Your task to perform on an android device: toggle pop-ups in chrome Image 0: 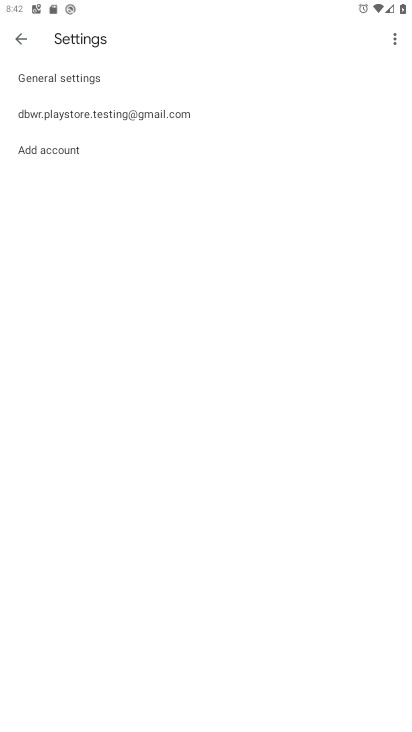
Step 0: press home button
Your task to perform on an android device: toggle pop-ups in chrome Image 1: 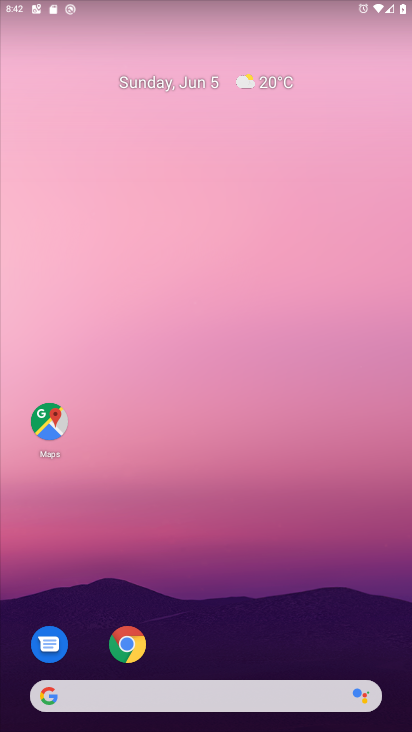
Step 1: drag from (319, 612) to (248, 55)
Your task to perform on an android device: toggle pop-ups in chrome Image 2: 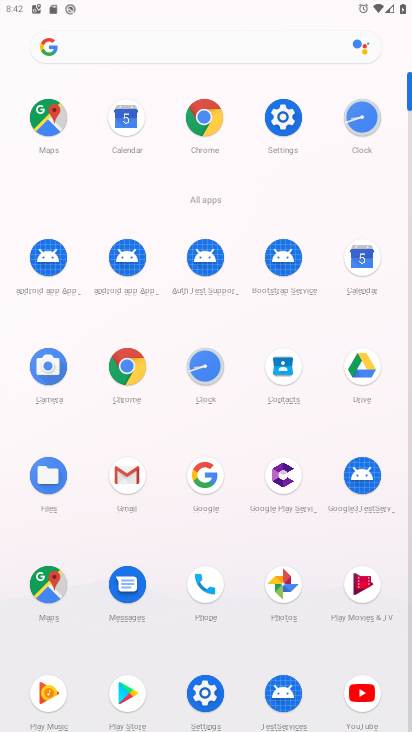
Step 2: click (114, 355)
Your task to perform on an android device: toggle pop-ups in chrome Image 3: 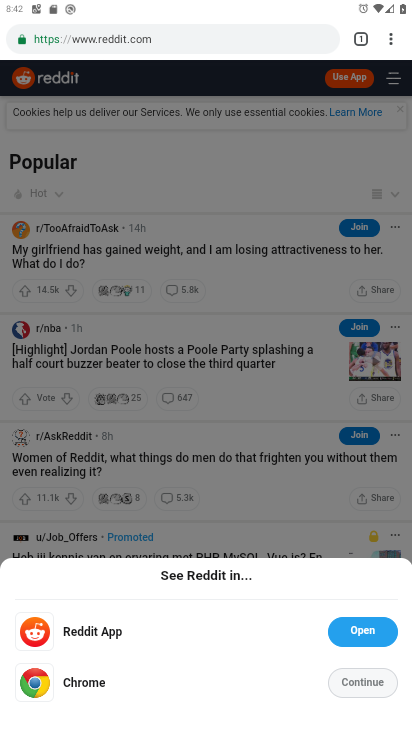
Step 3: click (160, 29)
Your task to perform on an android device: toggle pop-ups in chrome Image 4: 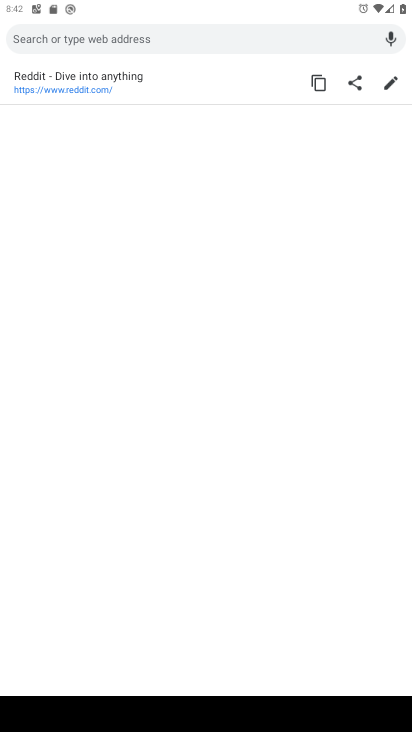
Step 4: press back button
Your task to perform on an android device: toggle pop-ups in chrome Image 5: 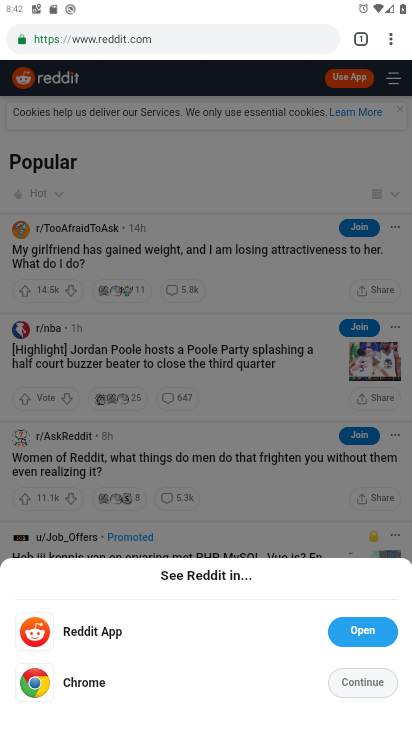
Step 5: drag from (390, 50) to (276, 472)
Your task to perform on an android device: toggle pop-ups in chrome Image 6: 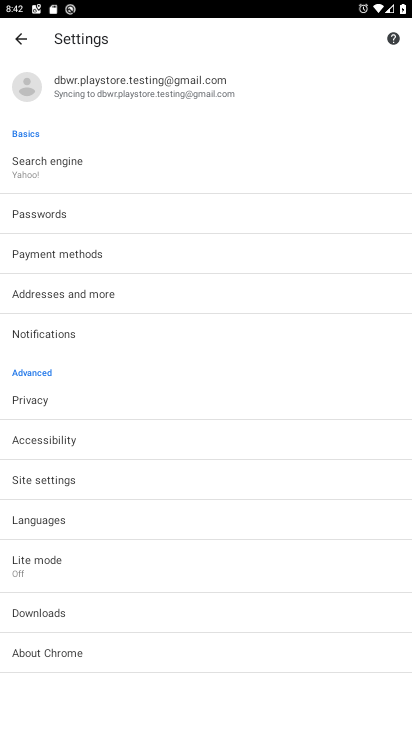
Step 6: click (90, 484)
Your task to perform on an android device: toggle pop-ups in chrome Image 7: 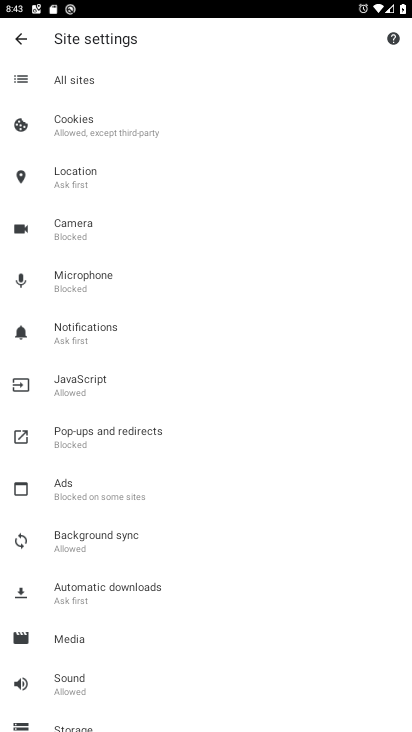
Step 7: click (144, 441)
Your task to perform on an android device: toggle pop-ups in chrome Image 8: 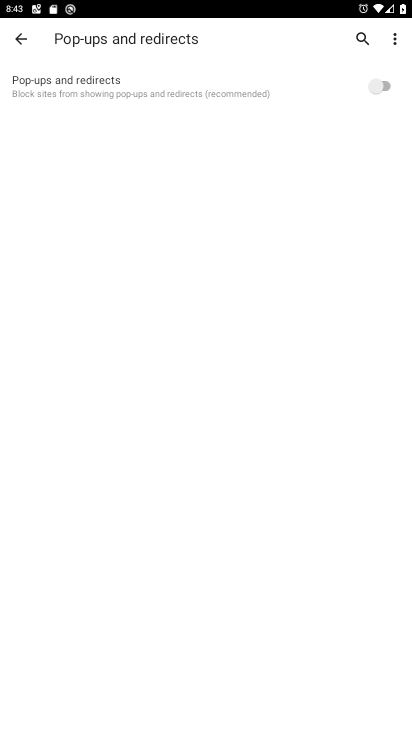
Step 8: click (383, 80)
Your task to perform on an android device: toggle pop-ups in chrome Image 9: 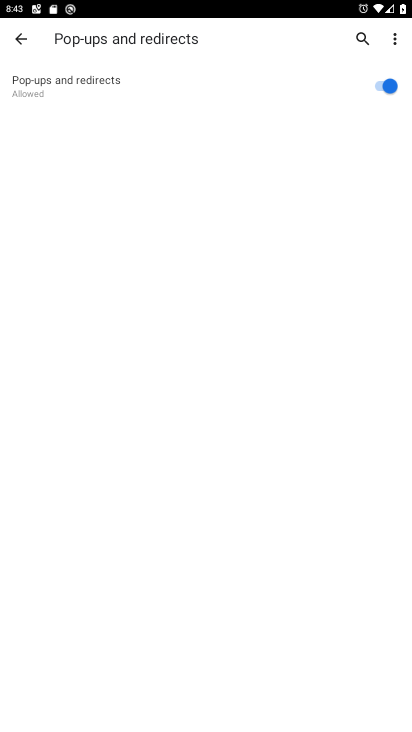
Step 9: task complete